Your task to perform on an android device: Open notification settings Image 0: 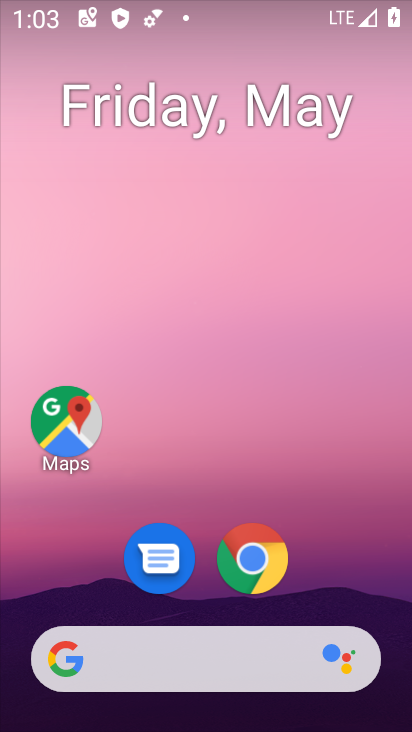
Step 0: drag from (329, 575) to (272, 29)
Your task to perform on an android device: Open notification settings Image 1: 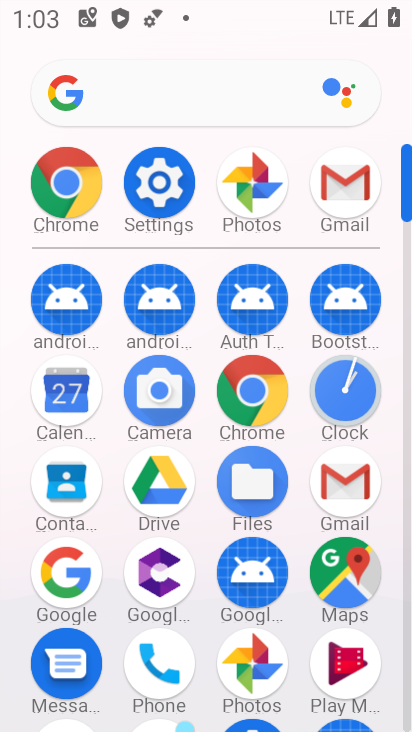
Step 1: click (152, 155)
Your task to perform on an android device: Open notification settings Image 2: 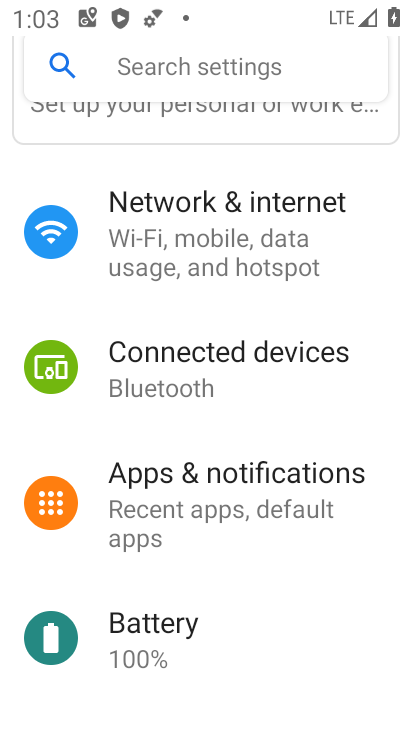
Step 2: click (230, 477)
Your task to perform on an android device: Open notification settings Image 3: 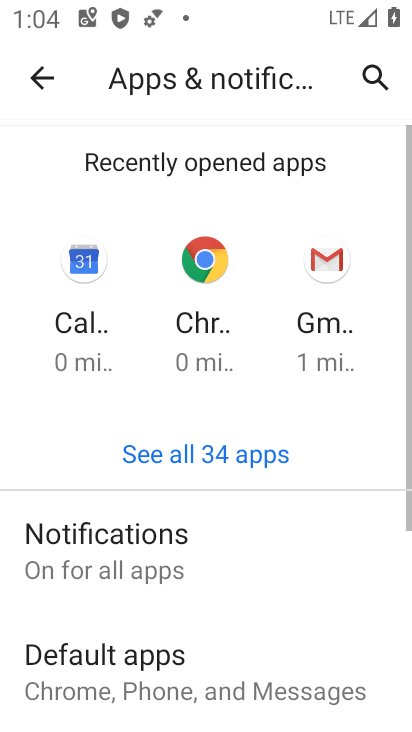
Step 3: click (225, 529)
Your task to perform on an android device: Open notification settings Image 4: 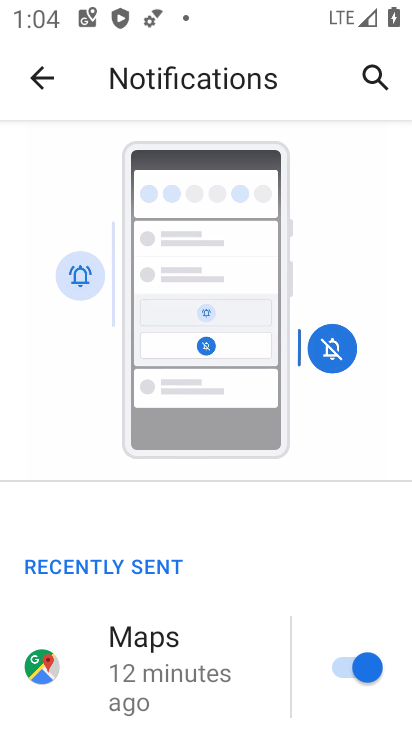
Step 4: task complete